Your task to perform on an android device: Open Google Maps and go to "Timeline" Image 0: 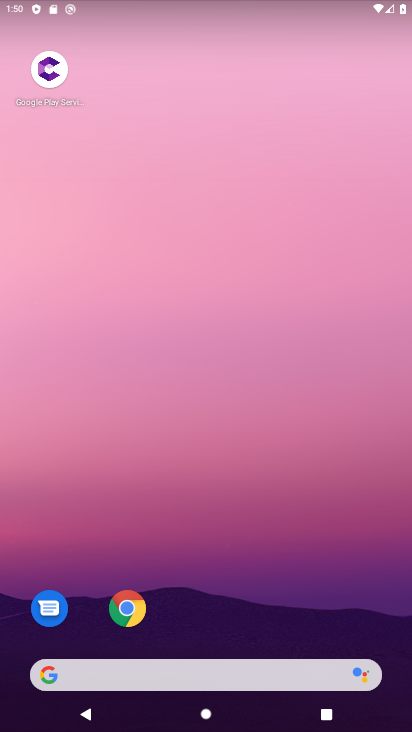
Step 0: drag from (203, 653) to (239, 229)
Your task to perform on an android device: Open Google Maps and go to "Timeline" Image 1: 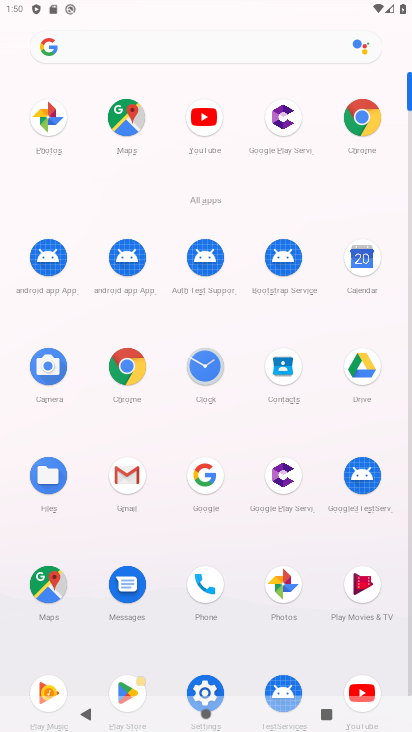
Step 1: click (53, 588)
Your task to perform on an android device: Open Google Maps and go to "Timeline" Image 2: 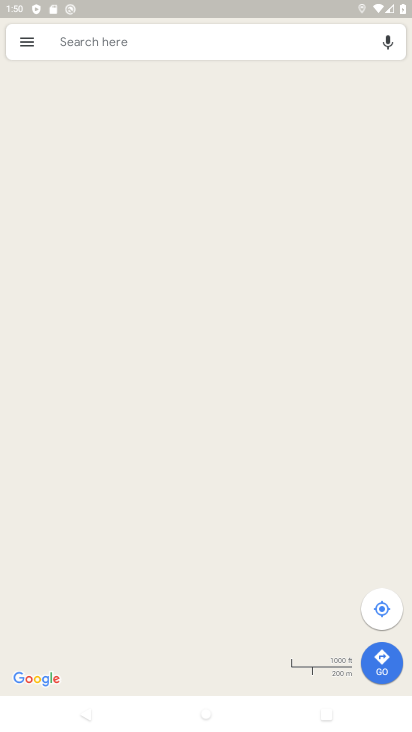
Step 2: click (33, 38)
Your task to perform on an android device: Open Google Maps and go to "Timeline" Image 3: 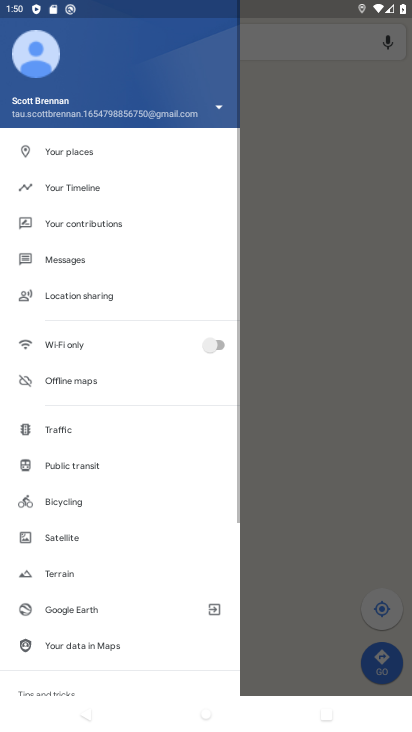
Step 3: click (116, 202)
Your task to perform on an android device: Open Google Maps and go to "Timeline" Image 4: 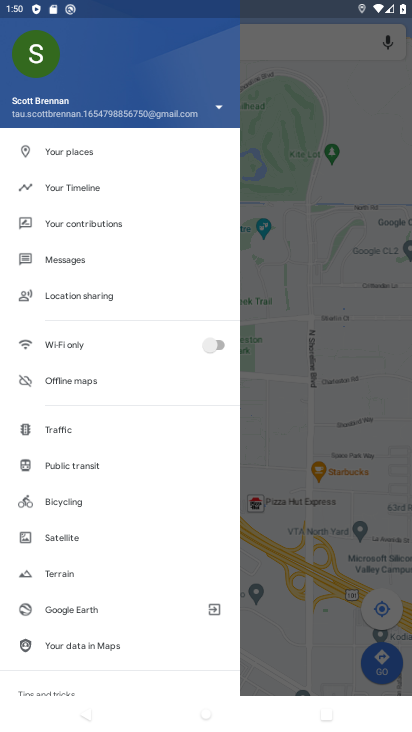
Step 4: click (109, 197)
Your task to perform on an android device: Open Google Maps and go to "Timeline" Image 5: 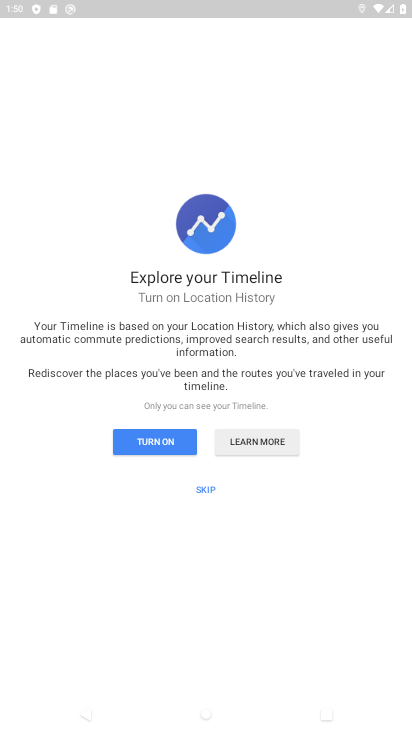
Step 5: click (204, 496)
Your task to perform on an android device: Open Google Maps and go to "Timeline" Image 6: 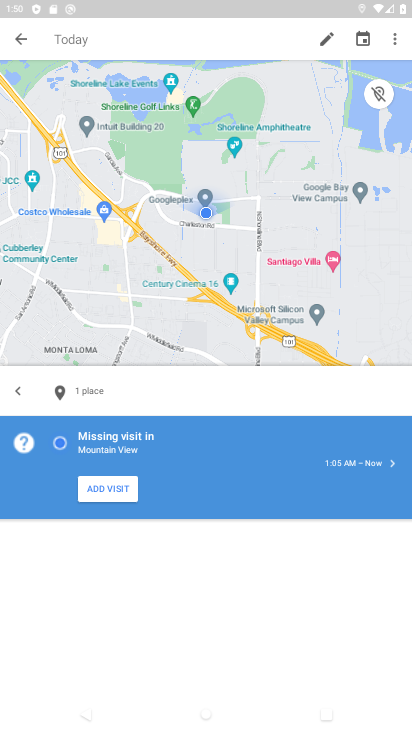
Step 6: task complete